Your task to perform on an android device: Add "macbook pro 13 inch" to the cart on newegg.com, then select checkout. Image 0: 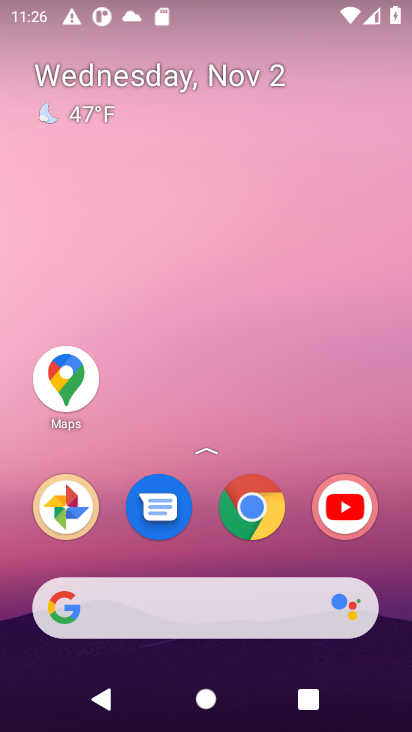
Step 0: click (241, 601)
Your task to perform on an android device: Add "macbook pro 13 inch" to the cart on newegg.com, then select checkout. Image 1: 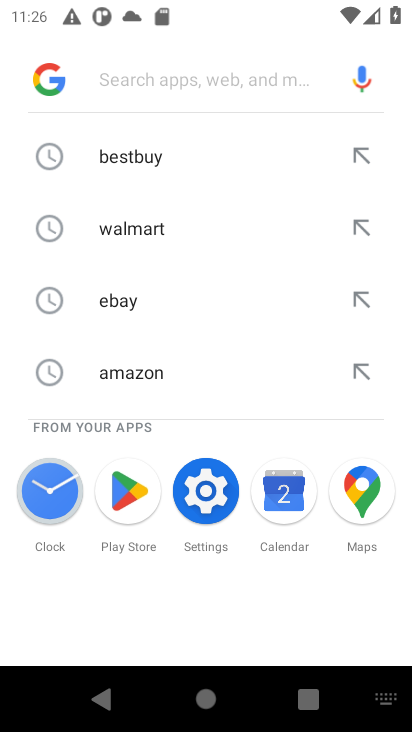
Step 1: type "macbook pro 13 inch"
Your task to perform on an android device: Add "macbook pro 13 inch" to the cart on newegg.com, then select checkout. Image 2: 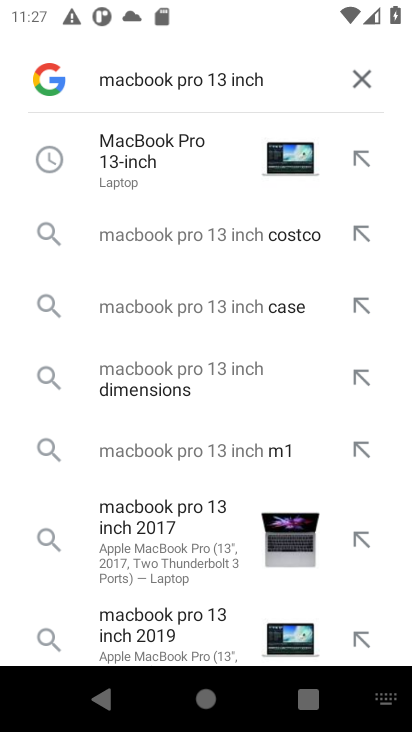
Step 2: click (176, 170)
Your task to perform on an android device: Add "macbook pro 13 inch" to the cart on newegg.com, then select checkout. Image 3: 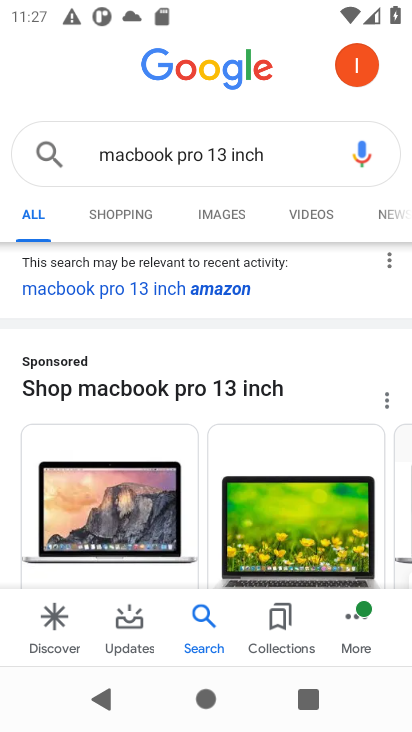
Step 3: click (157, 506)
Your task to perform on an android device: Add "macbook pro 13 inch" to the cart on newegg.com, then select checkout. Image 4: 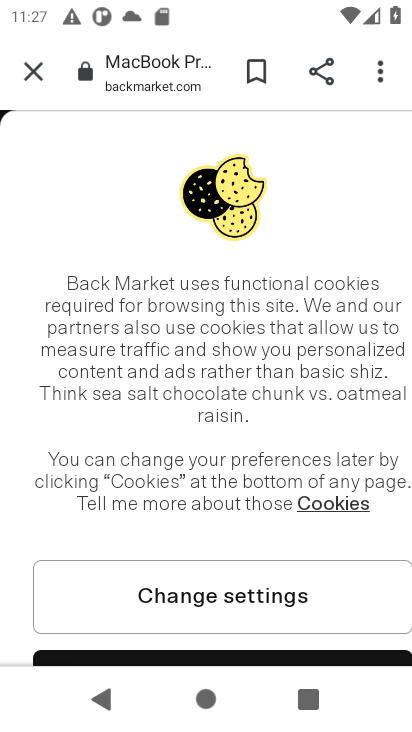
Step 4: task complete